Your task to perform on an android device: Show me the alarms in the clock app Image 0: 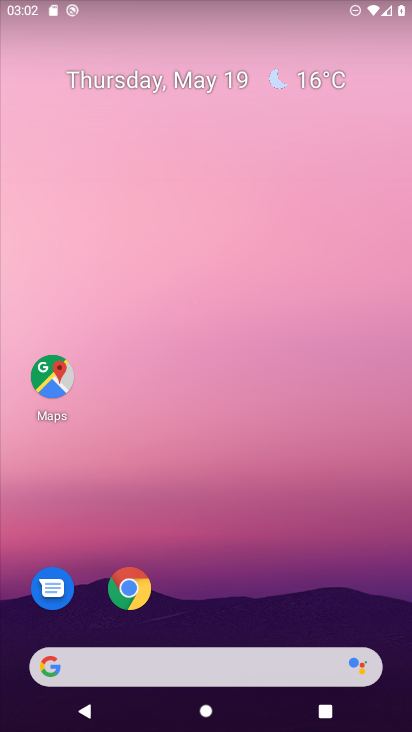
Step 0: drag from (229, 577) to (410, 274)
Your task to perform on an android device: Show me the alarms in the clock app Image 1: 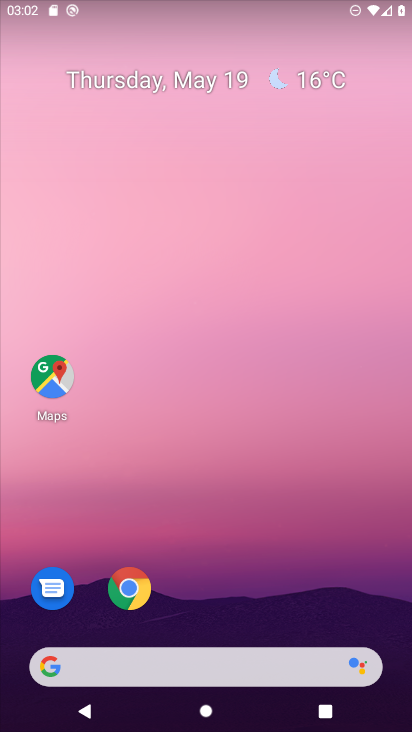
Step 1: drag from (282, 619) to (281, 0)
Your task to perform on an android device: Show me the alarms in the clock app Image 2: 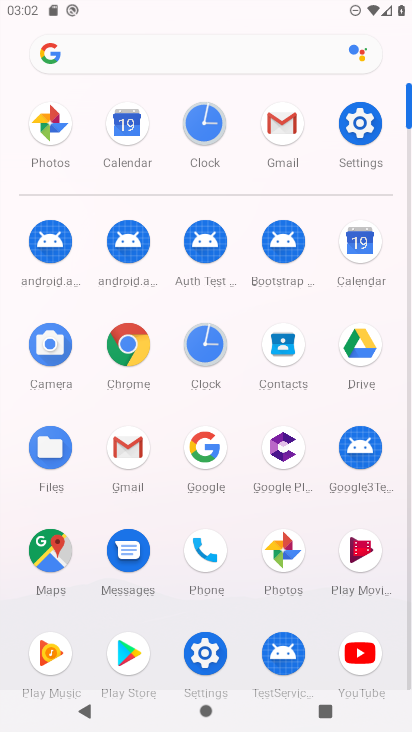
Step 2: click (193, 127)
Your task to perform on an android device: Show me the alarms in the clock app Image 3: 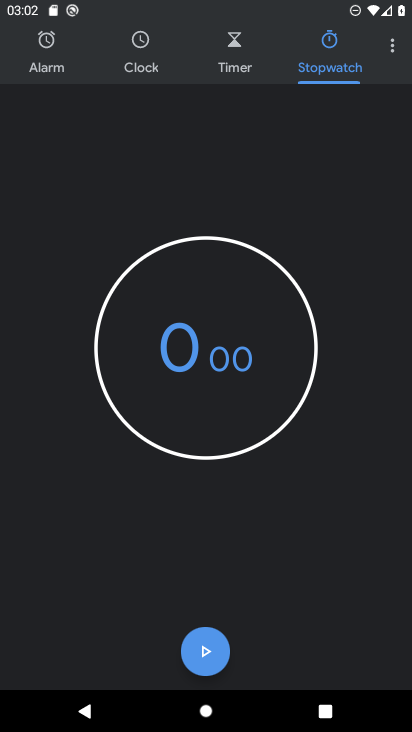
Step 3: click (40, 67)
Your task to perform on an android device: Show me the alarms in the clock app Image 4: 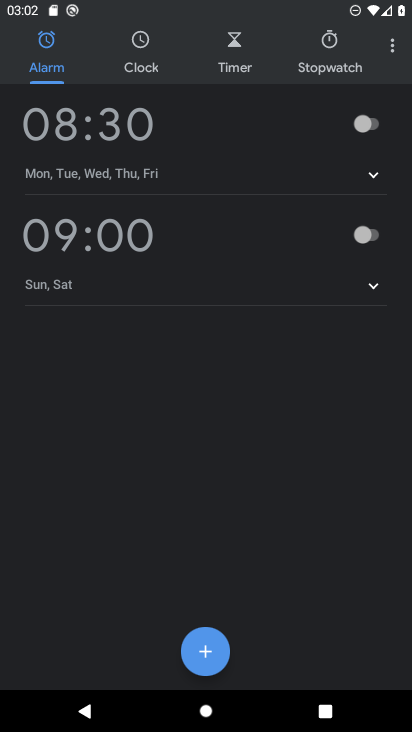
Step 4: task complete